Your task to perform on an android device: toggle notifications settings in the gmail app Image 0: 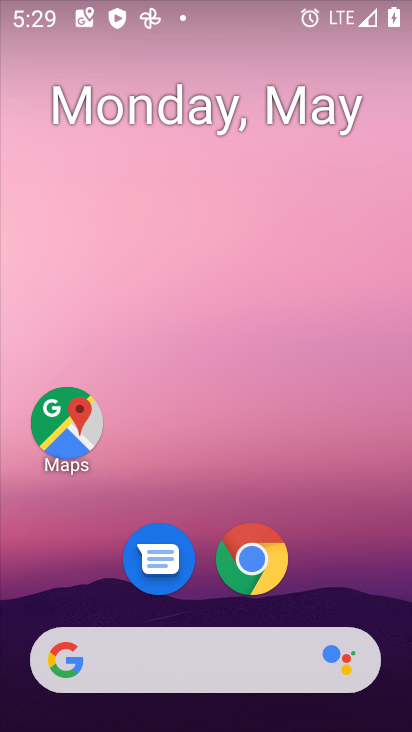
Step 0: drag from (274, 552) to (305, 8)
Your task to perform on an android device: toggle notifications settings in the gmail app Image 1: 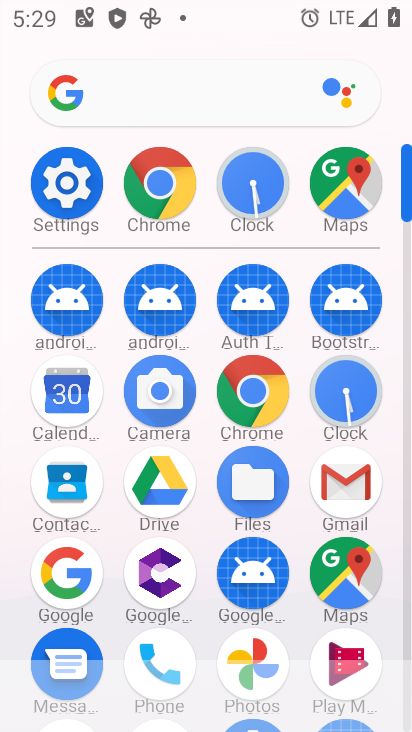
Step 1: click (365, 481)
Your task to perform on an android device: toggle notifications settings in the gmail app Image 2: 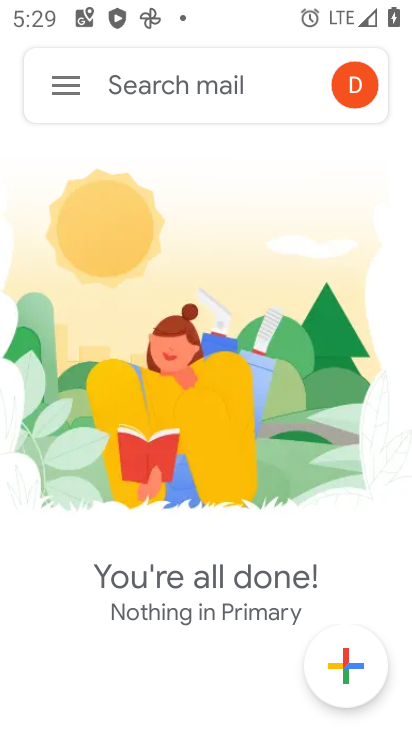
Step 2: click (61, 94)
Your task to perform on an android device: toggle notifications settings in the gmail app Image 3: 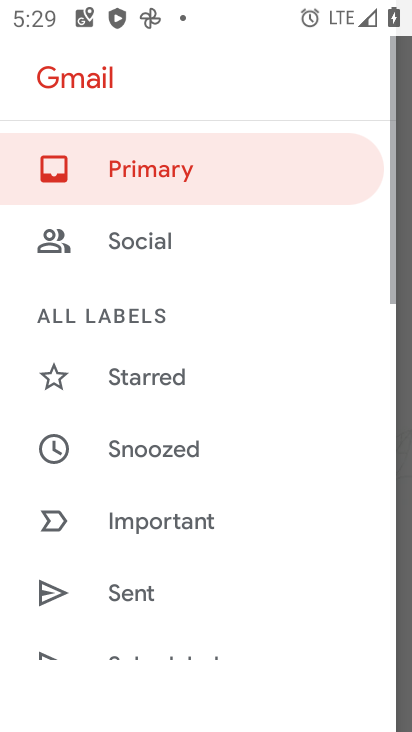
Step 3: drag from (169, 622) to (218, 134)
Your task to perform on an android device: toggle notifications settings in the gmail app Image 4: 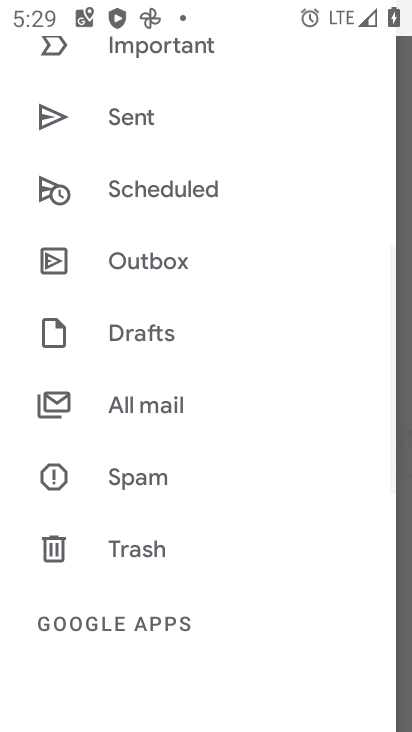
Step 4: drag from (260, 583) to (269, 83)
Your task to perform on an android device: toggle notifications settings in the gmail app Image 5: 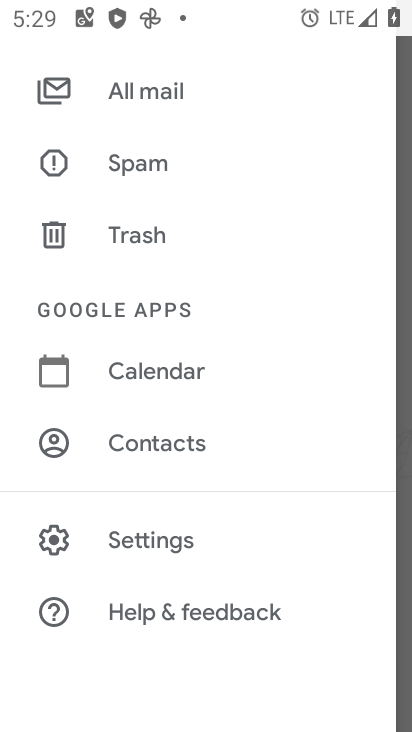
Step 5: click (158, 533)
Your task to perform on an android device: toggle notifications settings in the gmail app Image 6: 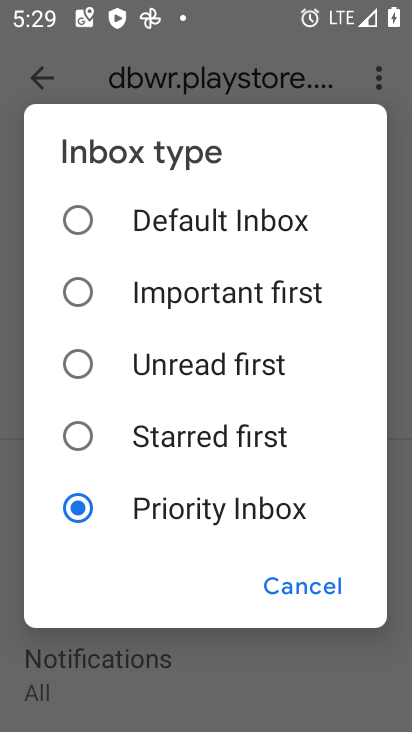
Step 6: click (302, 585)
Your task to perform on an android device: toggle notifications settings in the gmail app Image 7: 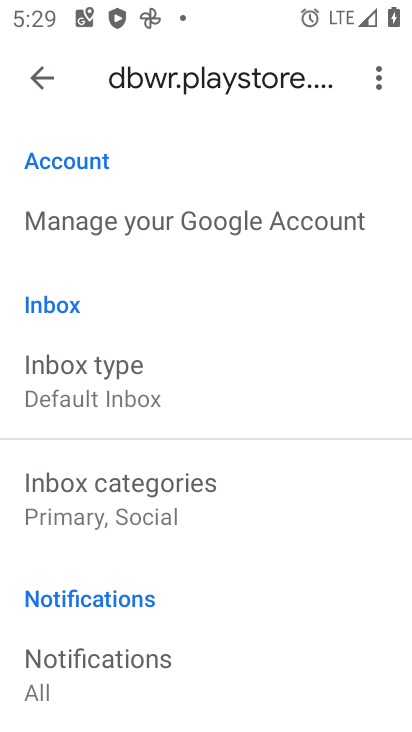
Step 7: drag from (213, 636) to (267, 127)
Your task to perform on an android device: toggle notifications settings in the gmail app Image 8: 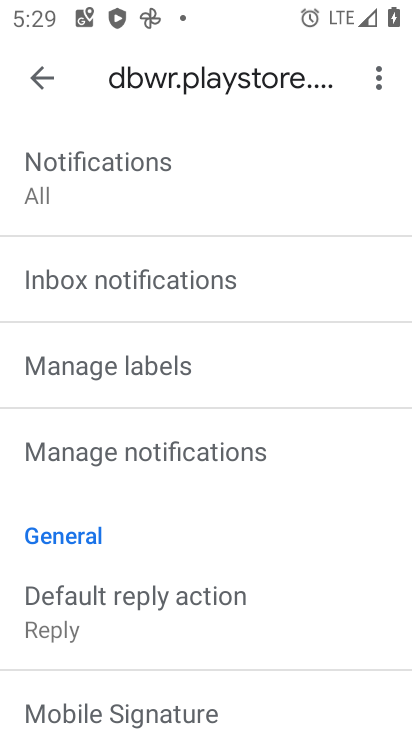
Step 8: click (189, 457)
Your task to perform on an android device: toggle notifications settings in the gmail app Image 9: 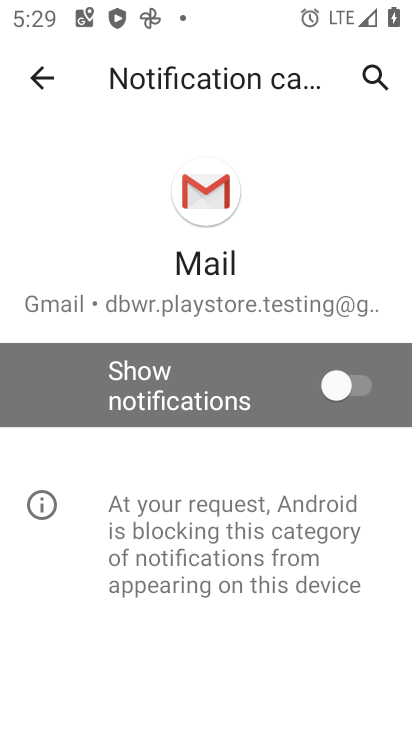
Step 9: click (359, 385)
Your task to perform on an android device: toggle notifications settings in the gmail app Image 10: 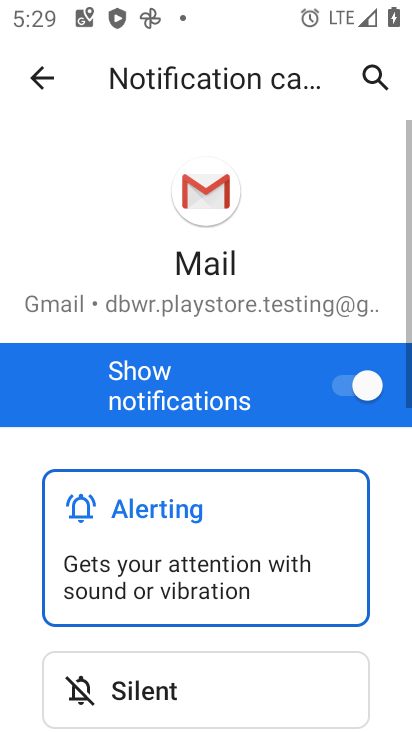
Step 10: task complete